Your task to perform on an android device: Search for the new Nintendo switch on Best Buy Image 0: 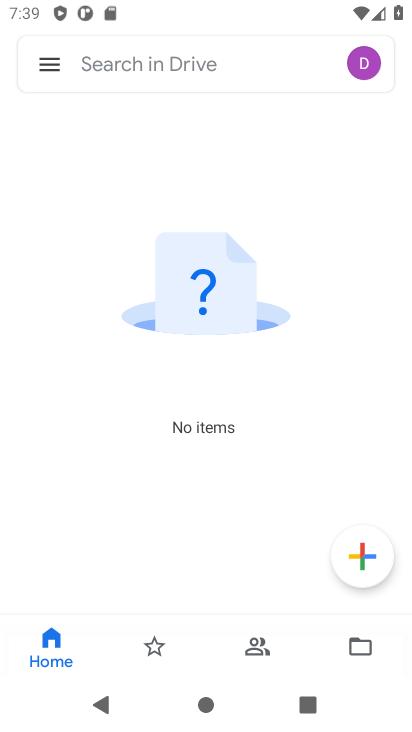
Step 0: press home button
Your task to perform on an android device: Search for the new Nintendo switch on Best Buy Image 1: 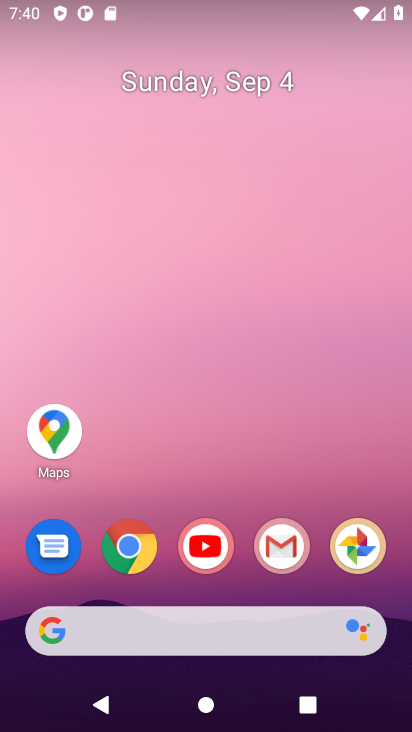
Step 1: click (135, 541)
Your task to perform on an android device: Search for the new Nintendo switch on Best Buy Image 2: 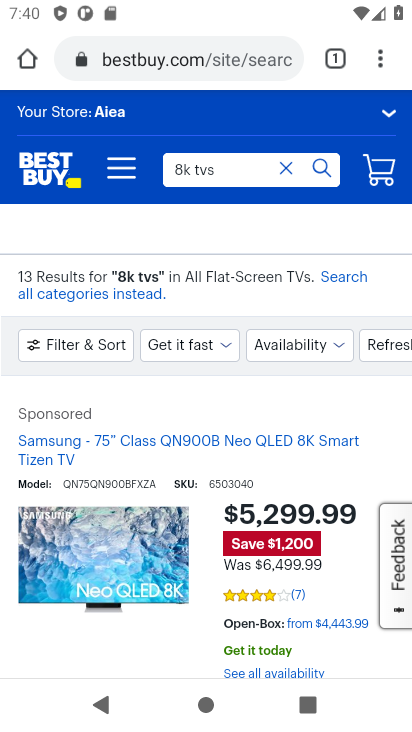
Step 2: click (159, 63)
Your task to perform on an android device: Search for the new Nintendo switch on Best Buy Image 3: 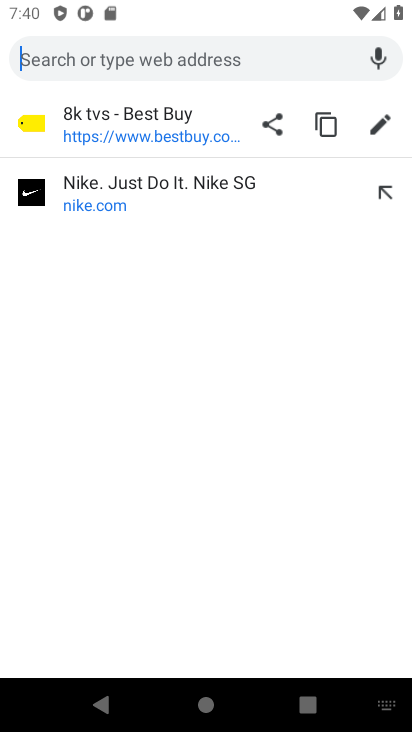
Step 3: type "best buy"
Your task to perform on an android device: Search for the new Nintendo switch on Best Buy Image 4: 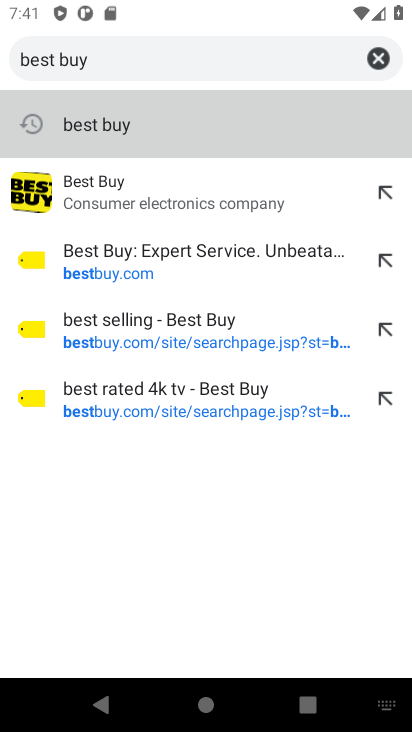
Step 4: click (99, 126)
Your task to perform on an android device: Search for the new Nintendo switch on Best Buy Image 5: 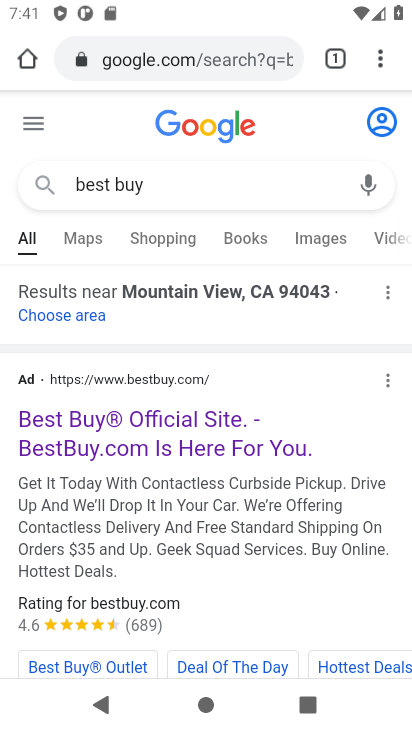
Step 5: click (62, 420)
Your task to perform on an android device: Search for the new Nintendo switch on Best Buy Image 6: 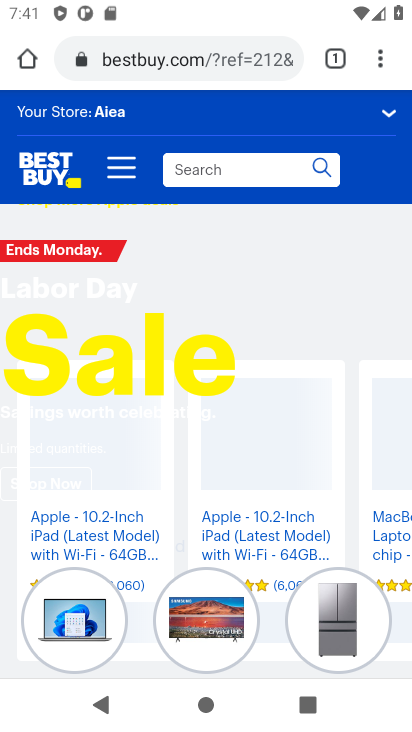
Step 6: click (318, 169)
Your task to perform on an android device: Search for the new Nintendo switch on Best Buy Image 7: 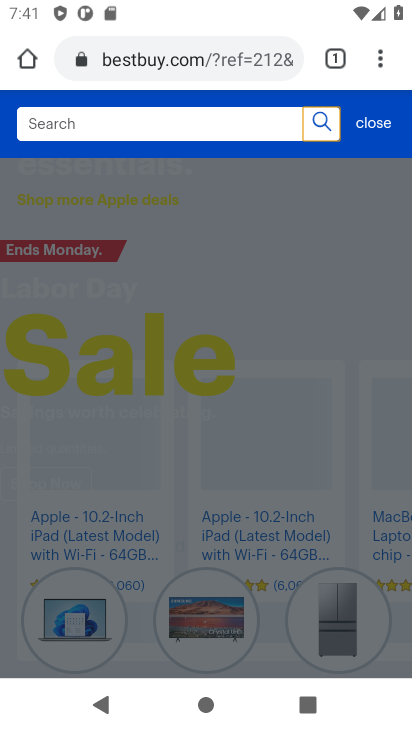
Step 7: click (134, 120)
Your task to perform on an android device: Search for the new Nintendo switch on Best Buy Image 8: 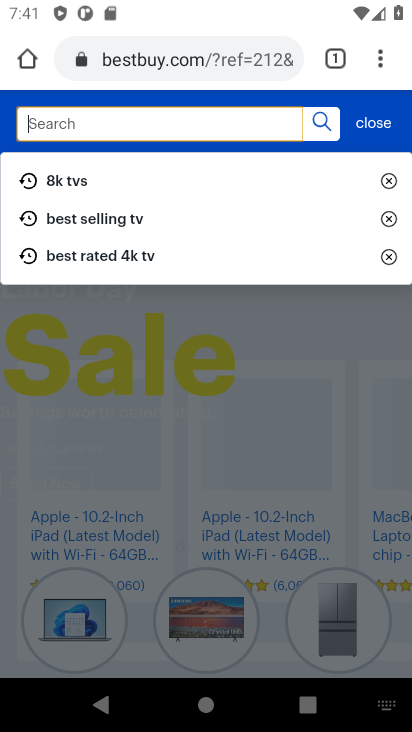
Step 8: type " new Nintendo switch "
Your task to perform on an android device: Search for the new Nintendo switch on Best Buy Image 9: 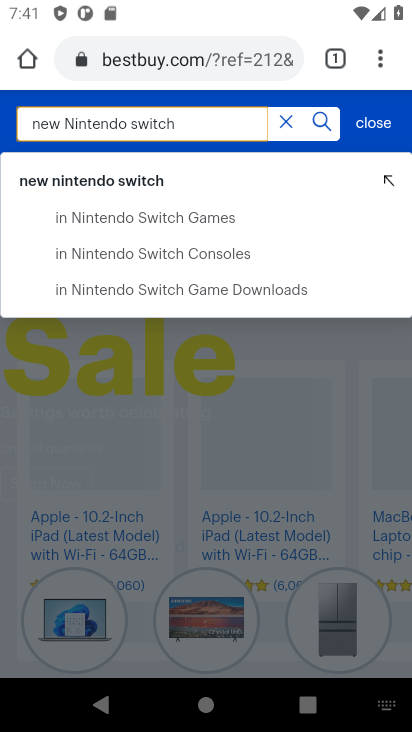
Step 9: click (327, 123)
Your task to perform on an android device: Search for the new Nintendo switch on Best Buy Image 10: 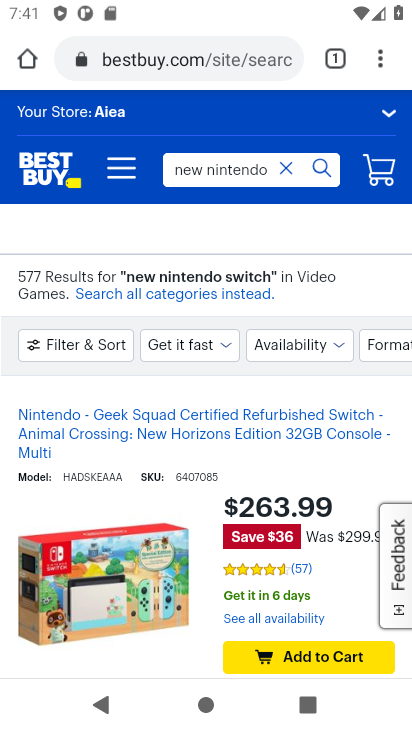
Step 10: task complete